Your task to perform on an android device: turn off location history Image 0: 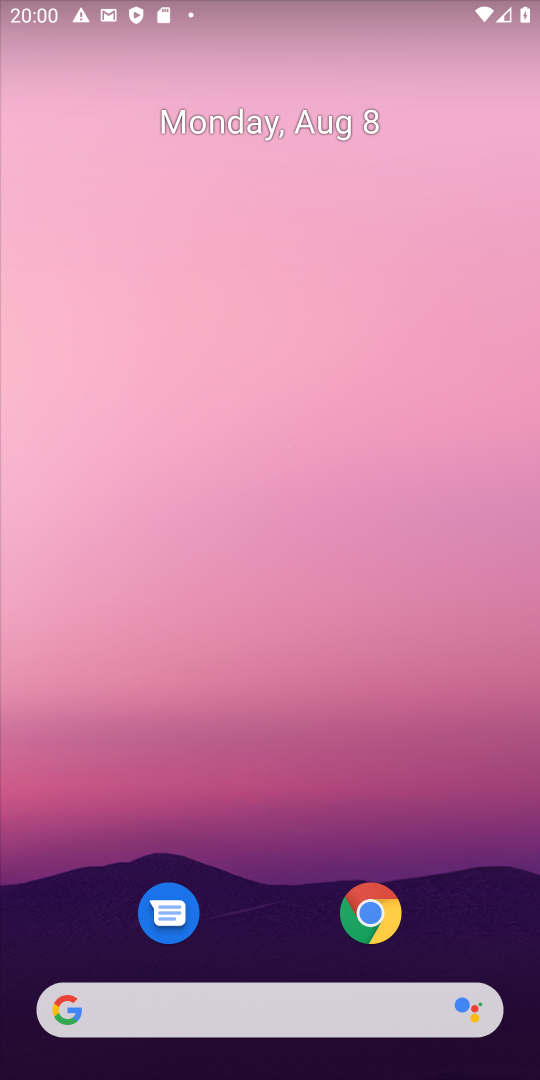
Step 0: press home button
Your task to perform on an android device: turn off location history Image 1: 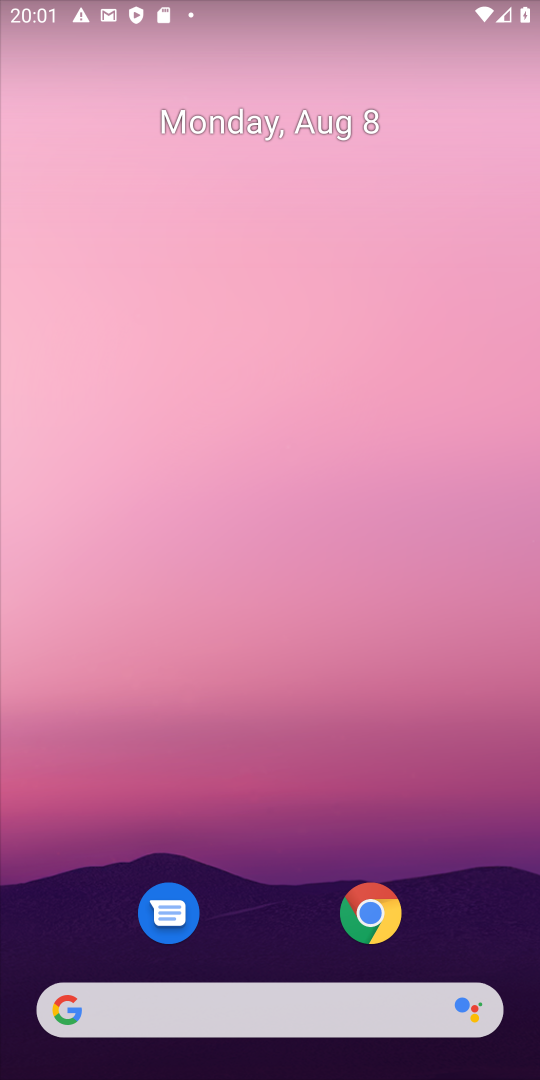
Step 1: drag from (273, 861) to (263, 204)
Your task to perform on an android device: turn off location history Image 2: 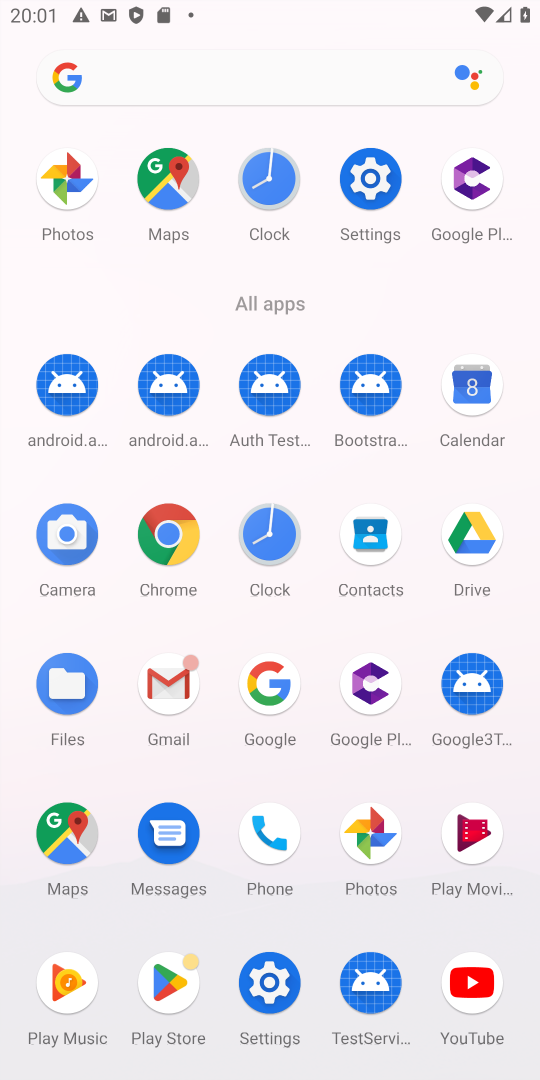
Step 2: click (54, 824)
Your task to perform on an android device: turn off location history Image 3: 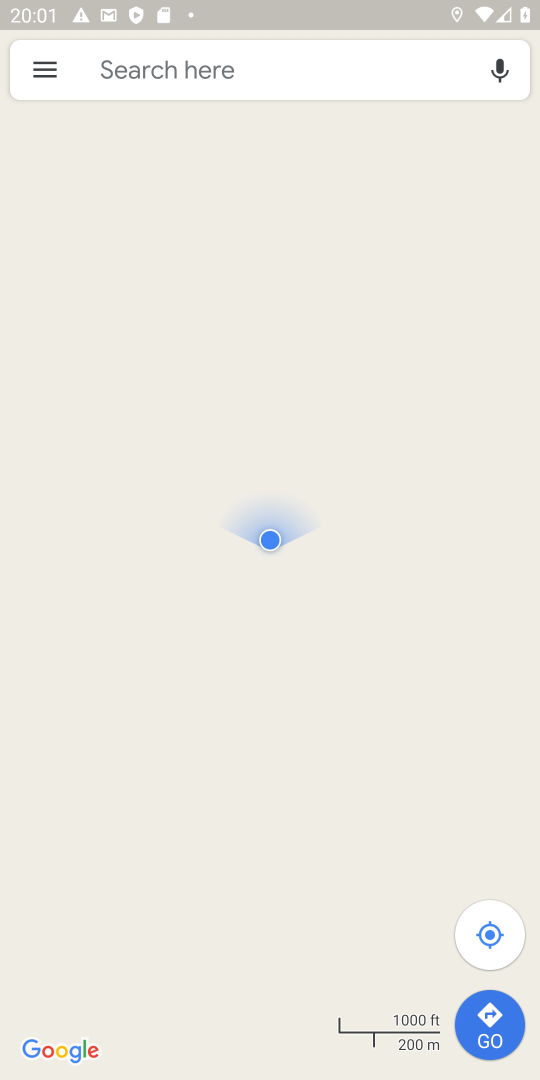
Step 3: click (39, 78)
Your task to perform on an android device: turn off location history Image 4: 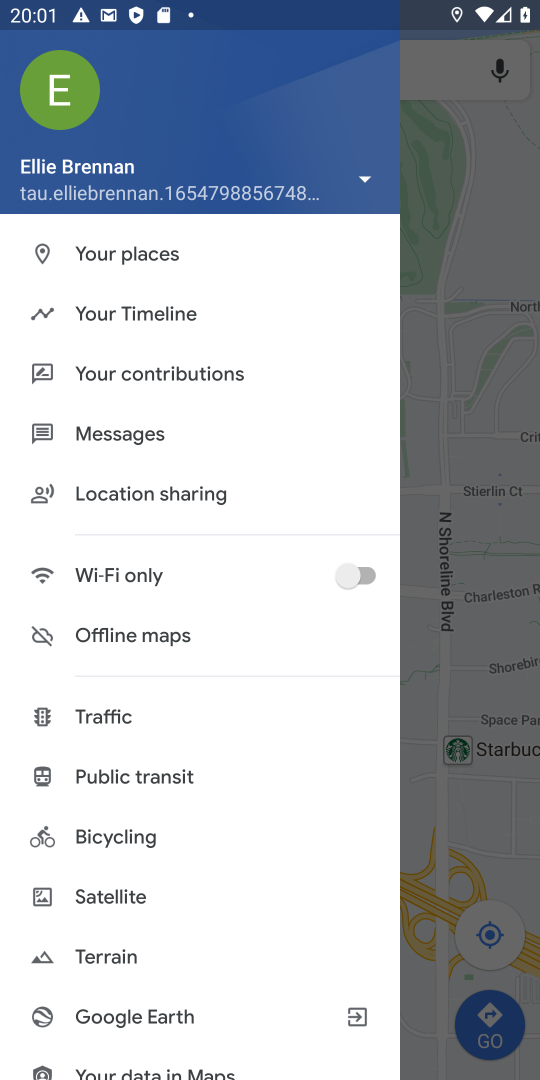
Step 4: drag from (166, 895) to (137, 558)
Your task to perform on an android device: turn off location history Image 5: 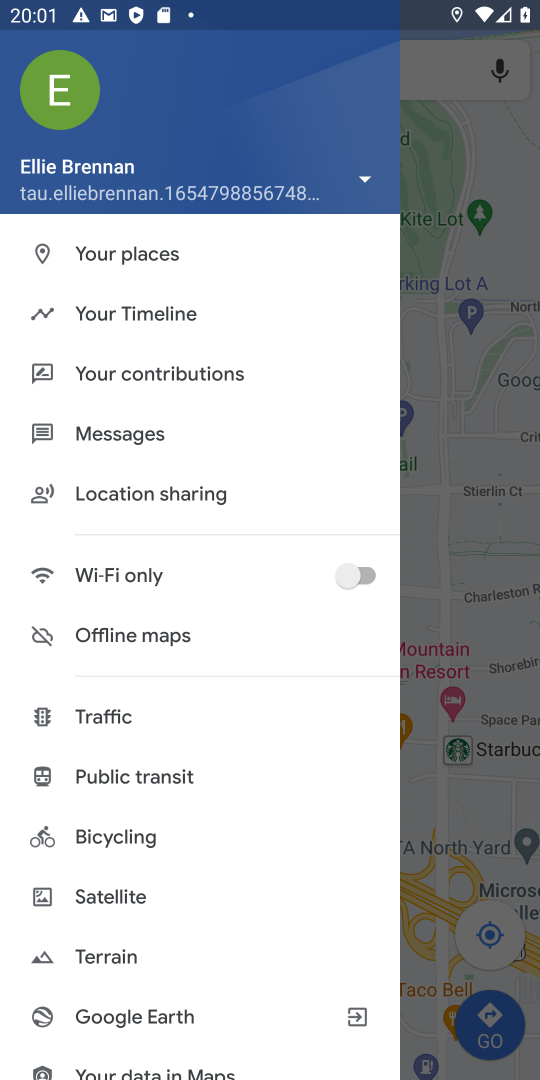
Step 5: click (128, 317)
Your task to perform on an android device: turn off location history Image 6: 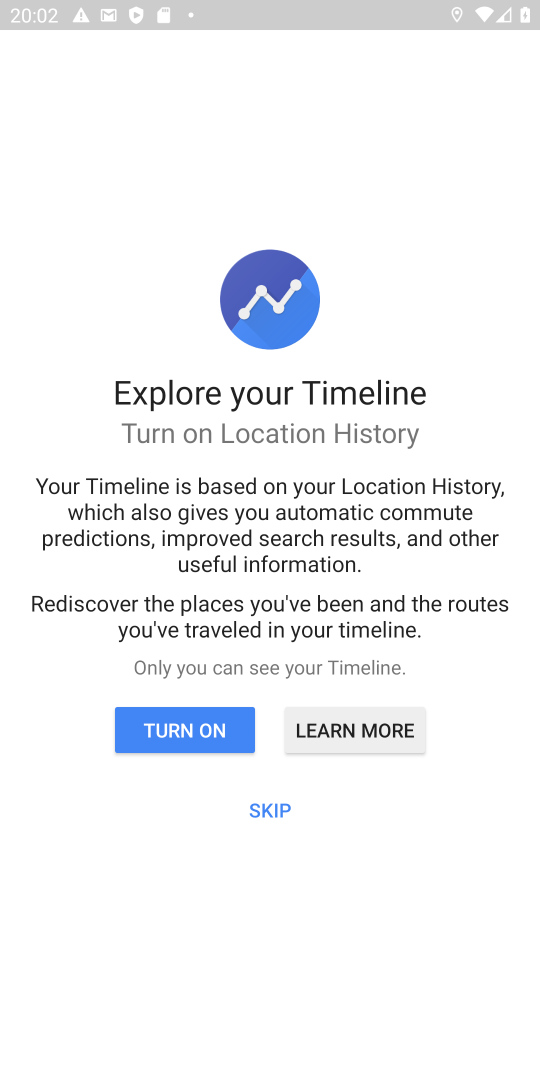
Step 6: click (262, 805)
Your task to perform on an android device: turn off location history Image 7: 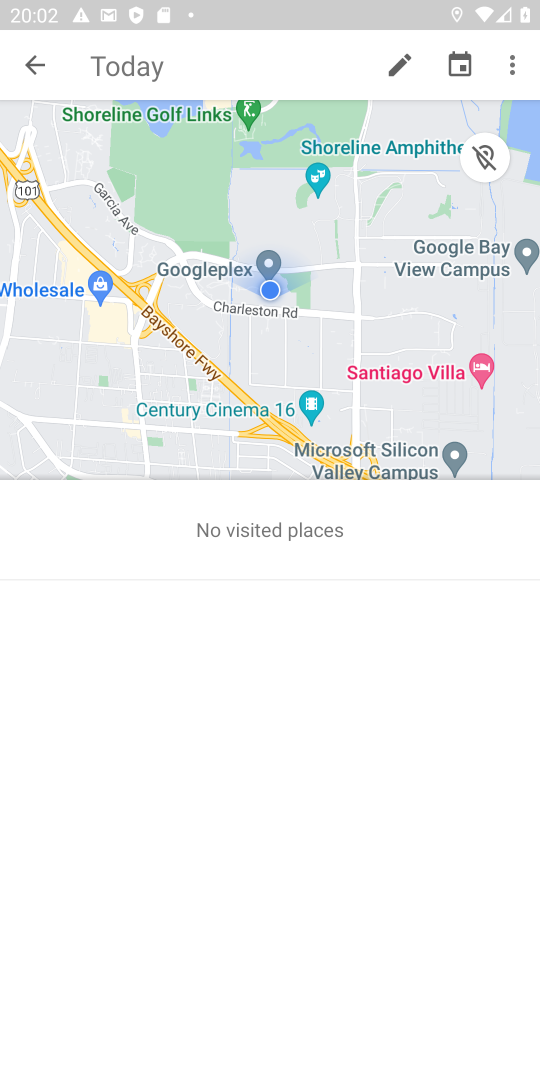
Step 7: click (511, 74)
Your task to perform on an android device: turn off location history Image 8: 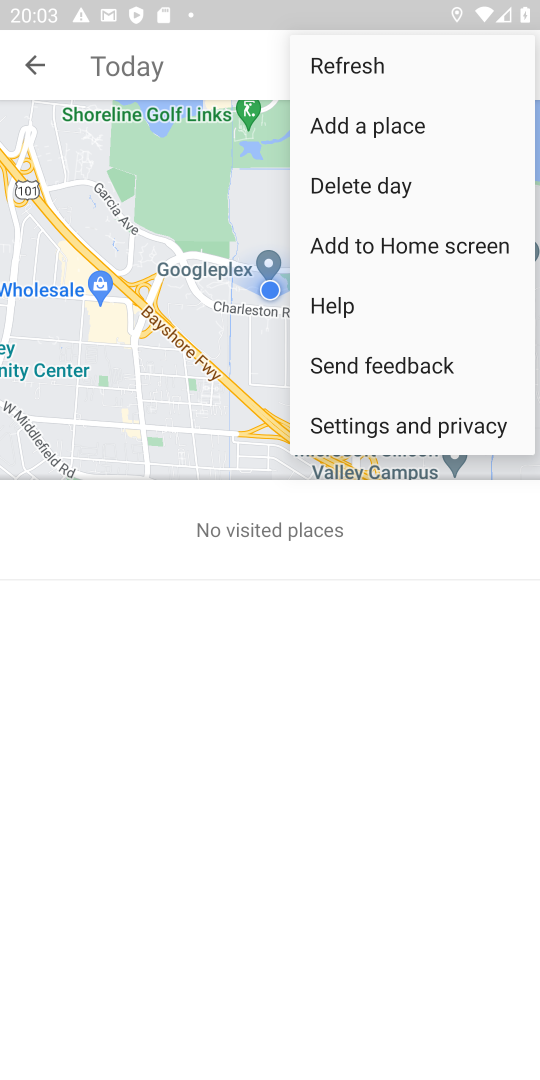
Step 8: click (426, 422)
Your task to perform on an android device: turn off location history Image 9: 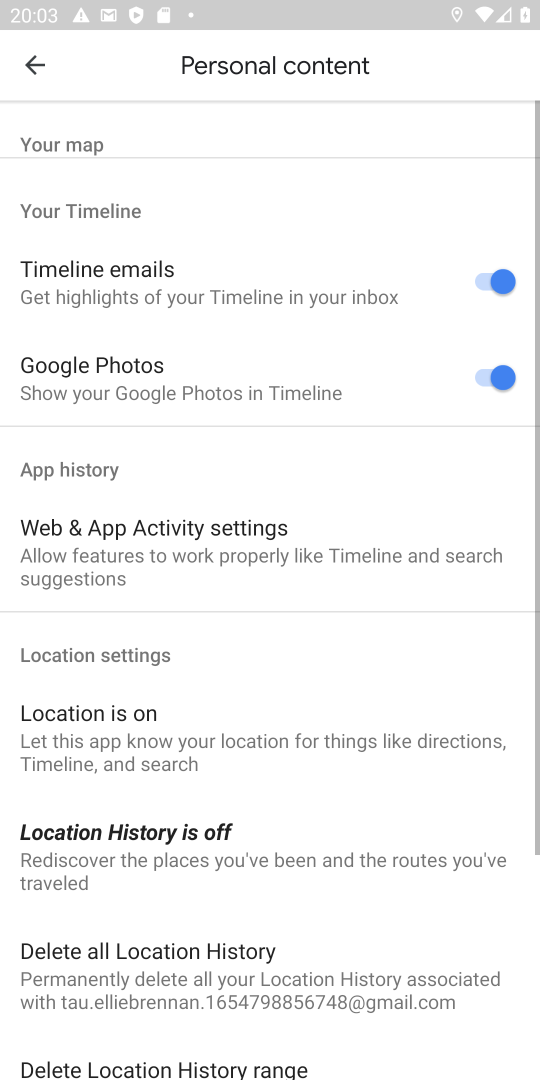
Step 9: click (104, 831)
Your task to perform on an android device: turn off location history Image 10: 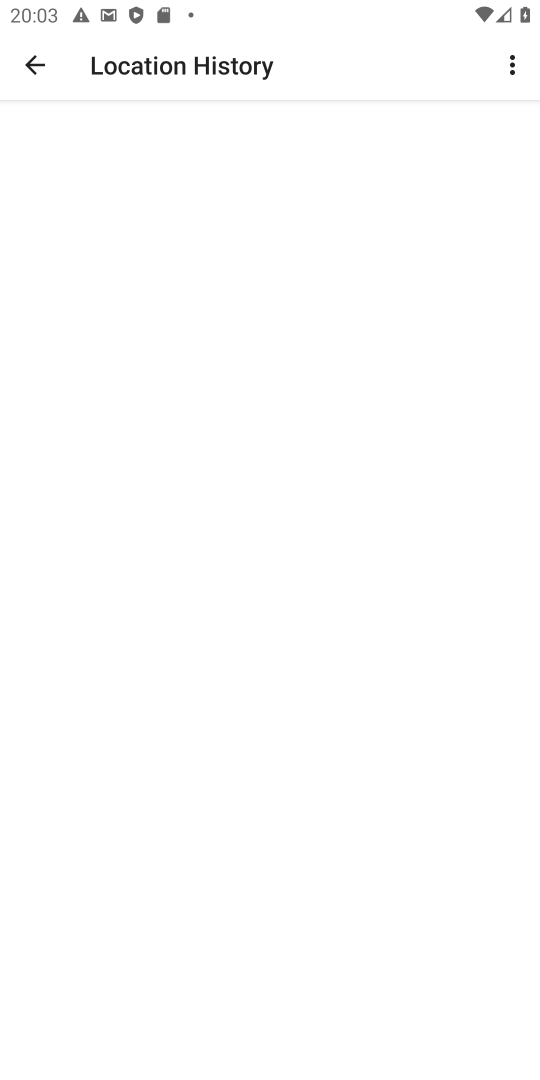
Step 10: task complete